Your task to perform on an android device: Open sound settings Image 0: 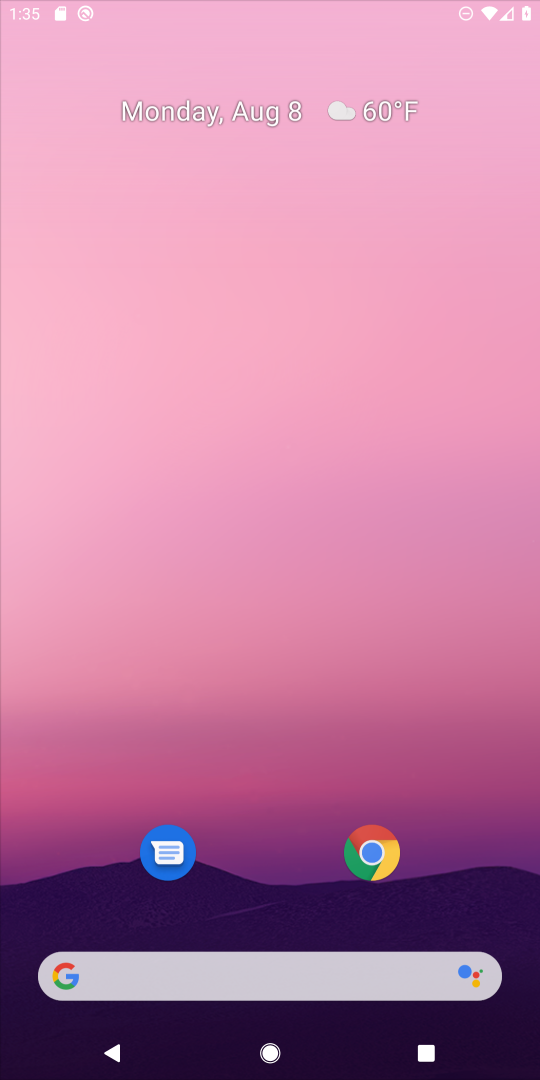
Step 0: press home button
Your task to perform on an android device: Open sound settings Image 1: 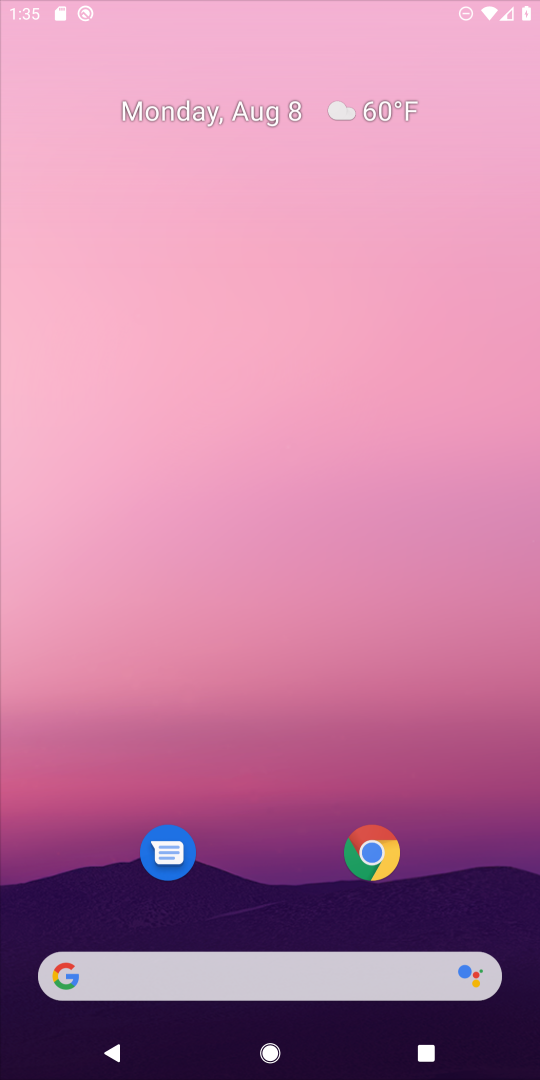
Step 1: click (284, 158)
Your task to perform on an android device: Open sound settings Image 2: 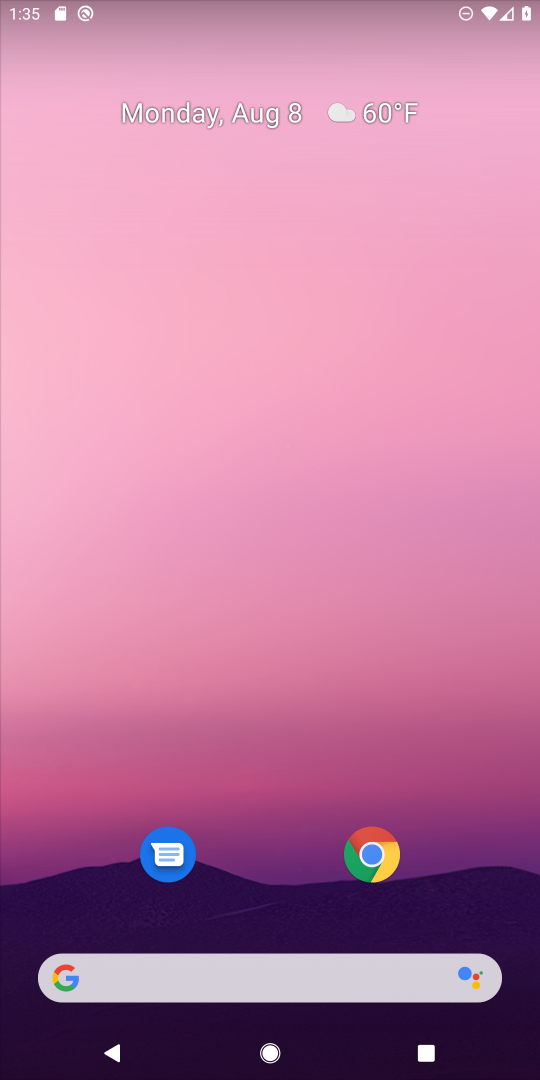
Step 2: drag from (281, 892) to (262, 137)
Your task to perform on an android device: Open sound settings Image 3: 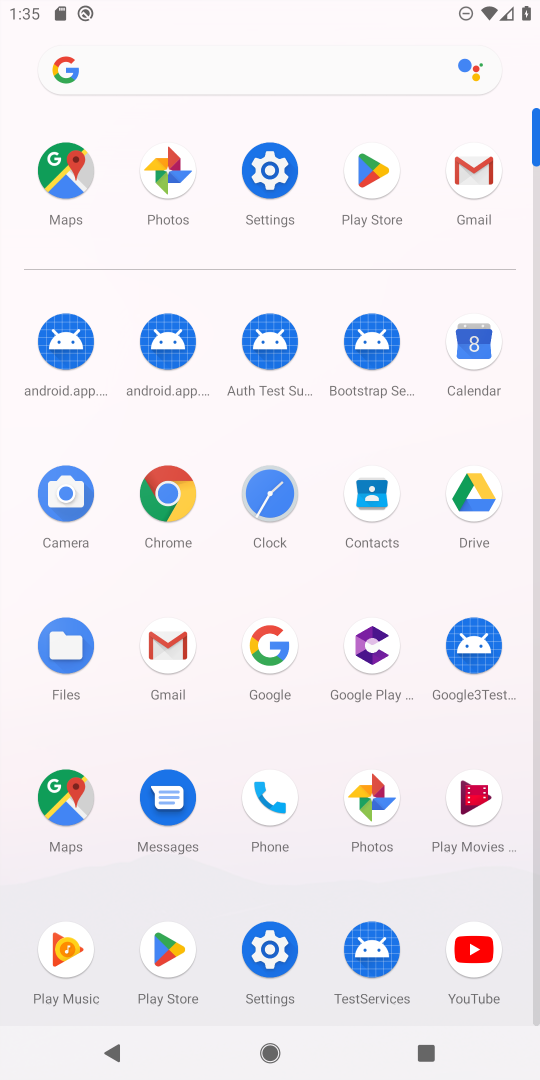
Step 3: click (279, 157)
Your task to perform on an android device: Open sound settings Image 4: 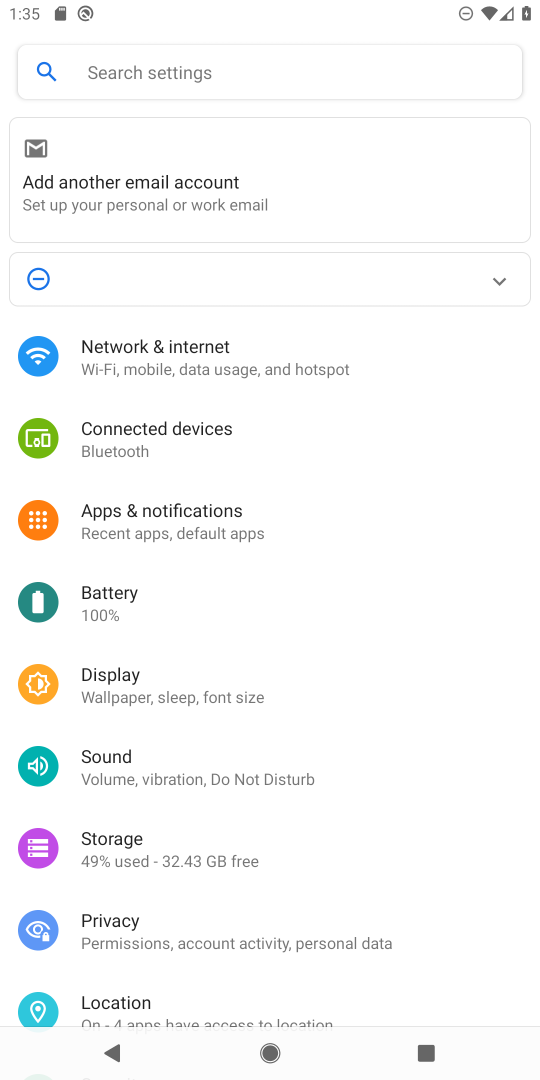
Step 4: click (127, 762)
Your task to perform on an android device: Open sound settings Image 5: 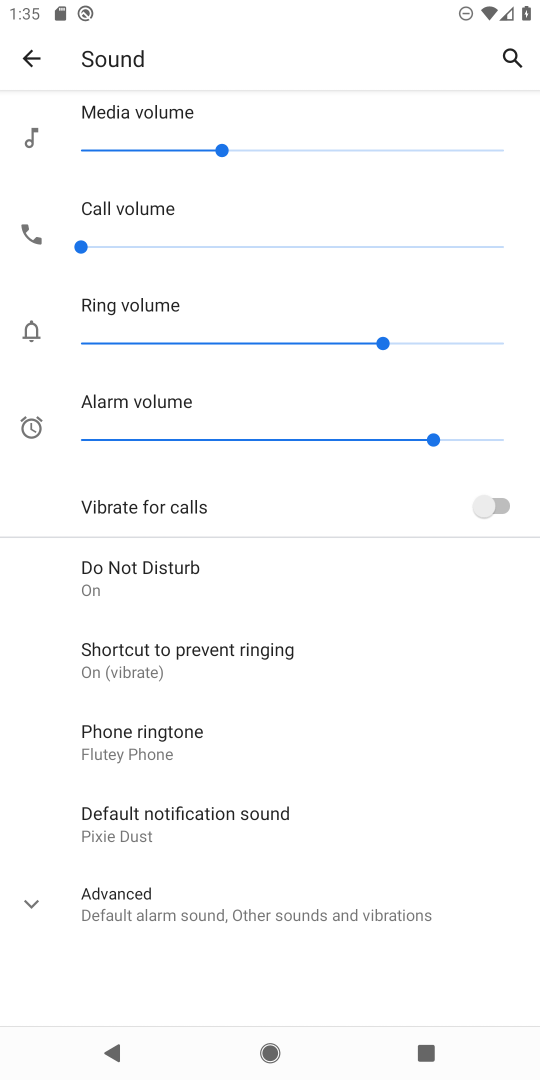
Step 5: task complete